Your task to perform on an android device: turn on airplane mode Image 0: 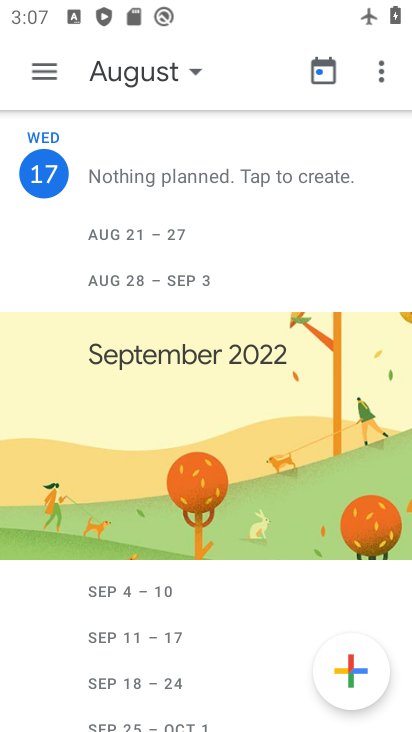
Step 0: press home button
Your task to perform on an android device: turn on airplane mode Image 1: 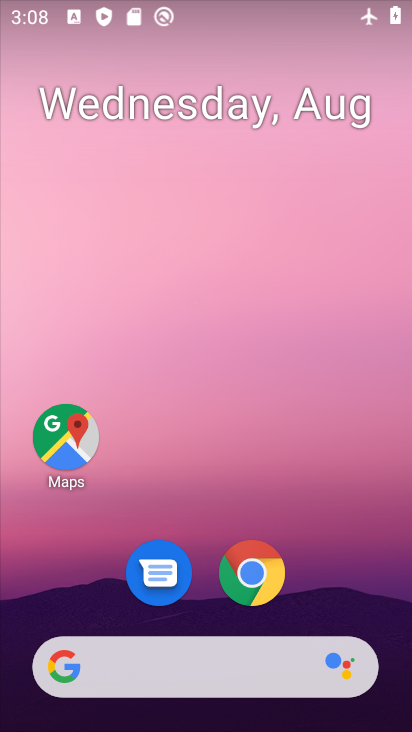
Step 1: drag from (204, 497) to (307, 75)
Your task to perform on an android device: turn on airplane mode Image 2: 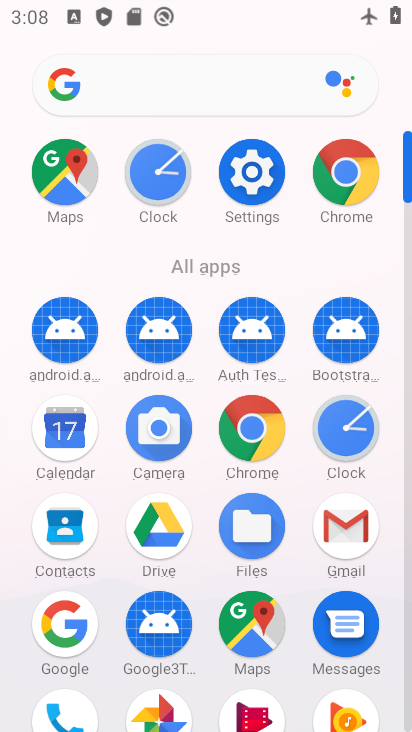
Step 2: click (261, 162)
Your task to perform on an android device: turn on airplane mode Image 3: 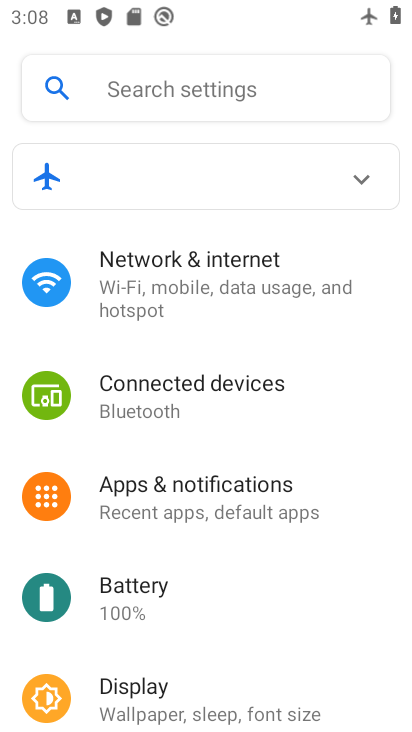
Step 3: click (201, 264)
Your task to perform on an android device: turn on airplane mode Image 4: 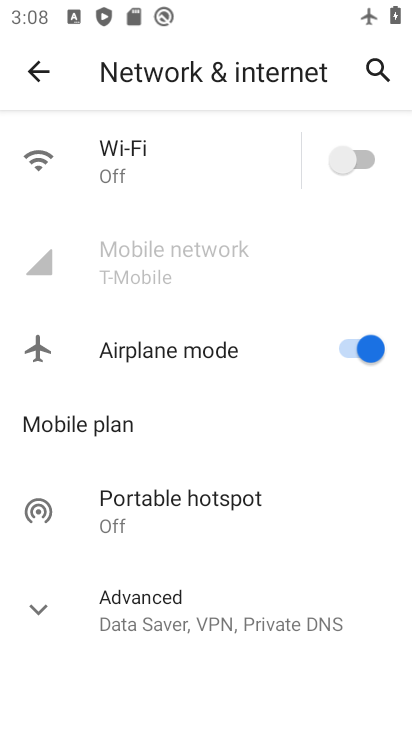
Step 4: task complete